Your task to perform on an android device: set default search engine in the chrome app Image 0: 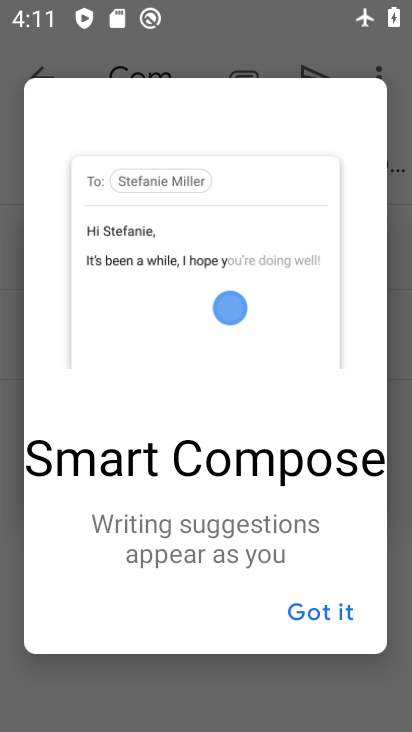
Step 0: press home button
Your task to perform on an android device: set default search engine in the chrome app Image 1: 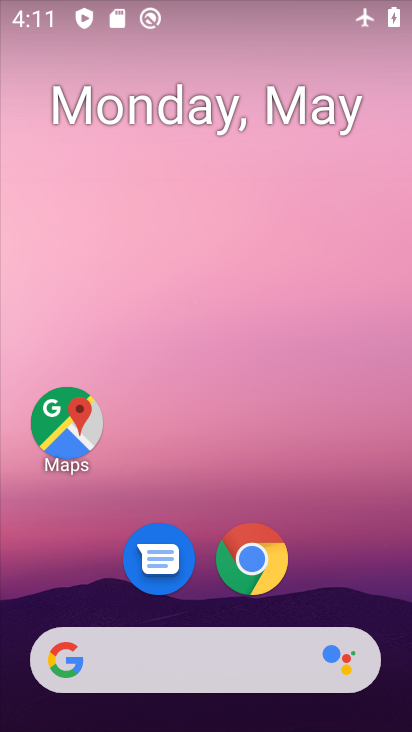
Step 1: drag from (289, 671) to (391, 9)
Your task to perform on an android device: set default search engine in the chrome app Image 2: 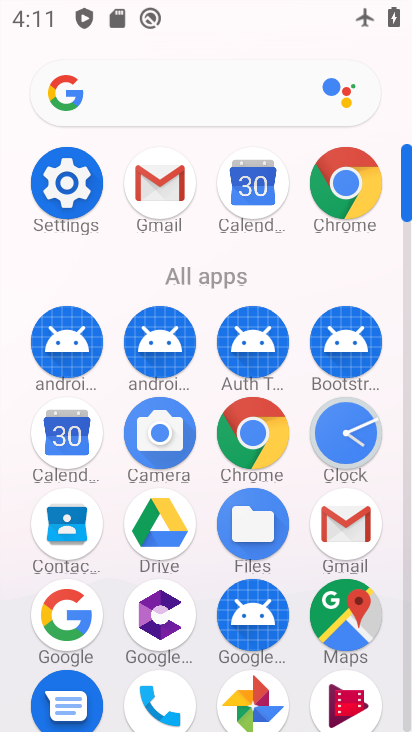
Step 2: click (269, 438)
Your task to perform on an android device: set default search engine in the chrome app Image 3: 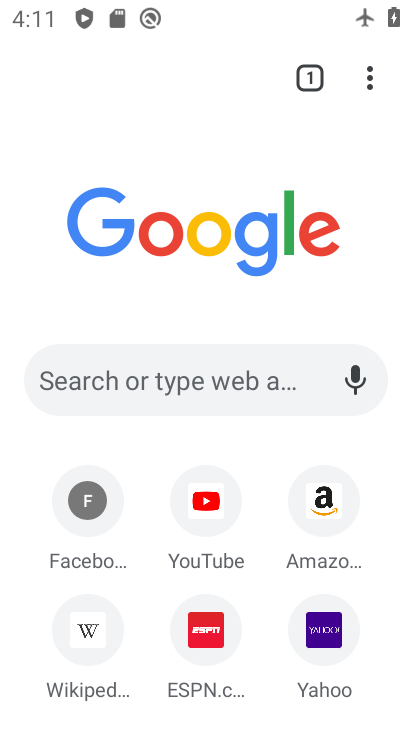
Step 3: drag from (364, 72) to (129, 664)
Your task to perform on an android device: set default search engine in the chrome app Image 4: 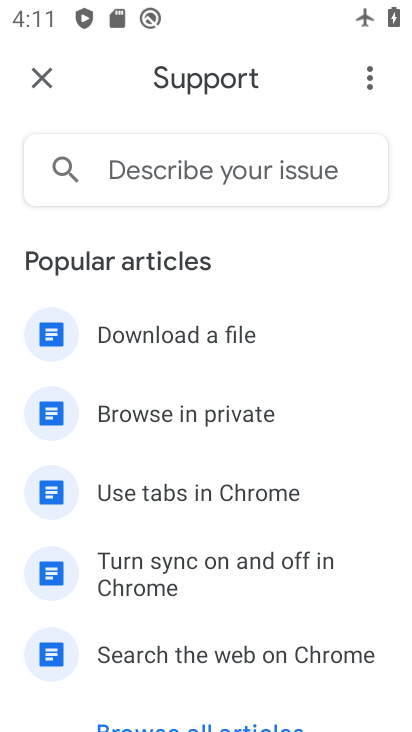
Step 4: press back button
Your task to perform on an android device: set default search engine in the chrome app Image 5: 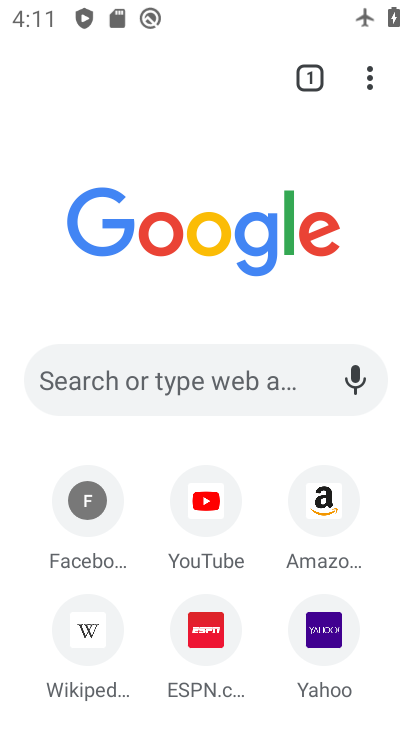
Step 5: drag from (361, 71) to (132, 648)
Your task to perform on an android device: set default search engine in the chrome app Image 6: 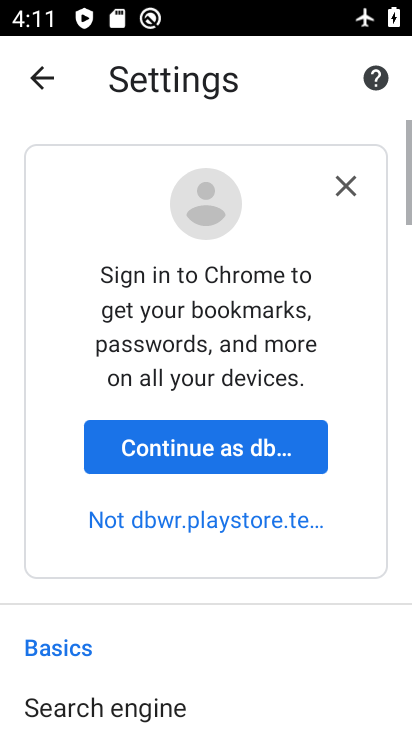
Step 6: drag from (229, 598) to (219, 83)
Your task to perform on an android device: set default search engine in the chrome app Image 7: 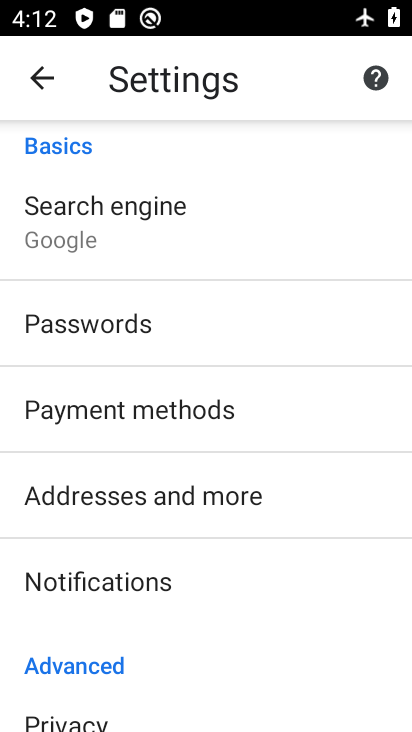
Step 7: click (208, 328)
Your task to perform on an android device: set default search engine in the chrome app Image 8: 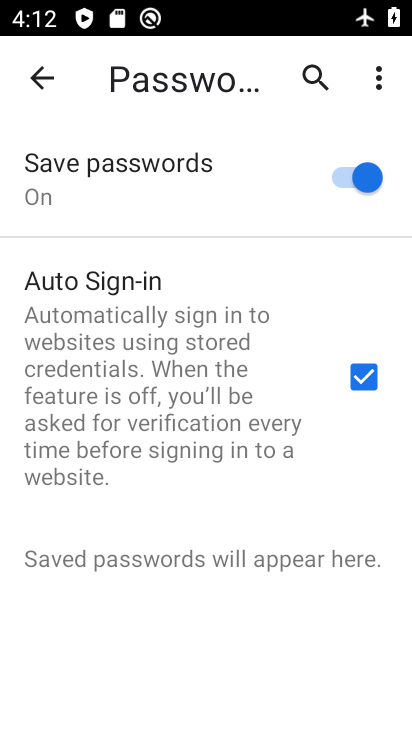
Step 8: press back button
Your task to perform on an android device: set default search engine in the chrome app Image 9: 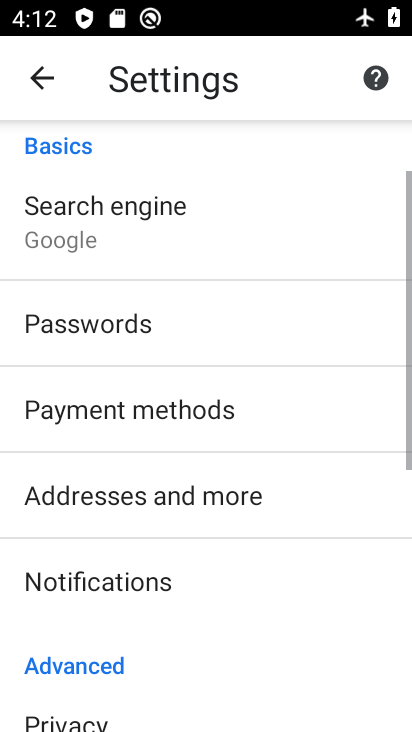
Step 9: click (164, 234)
Your task to perform on an android device: set default search engine in the chrome app Image 10: 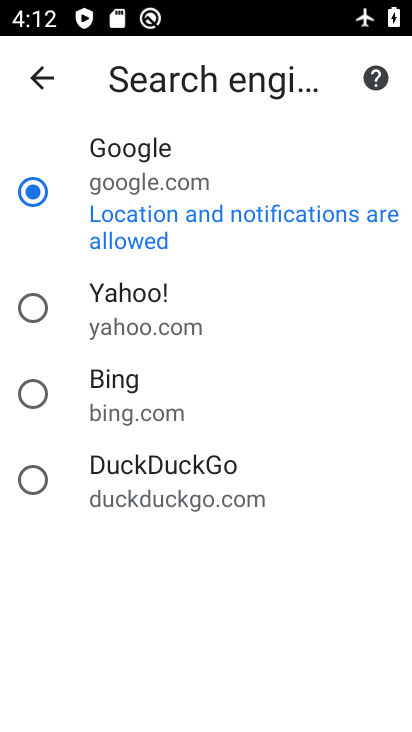
Step 10: task complete